Your task to perform on an android device: show emergency info Image 0: 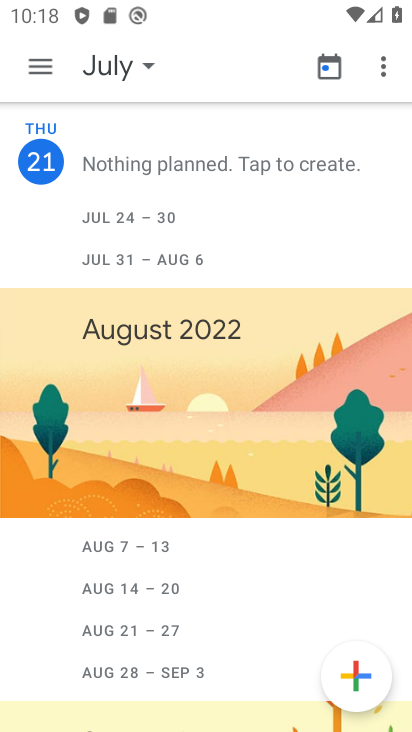
Step 0: press home button
Your task to perform on an android device: show emergency info Image 1: 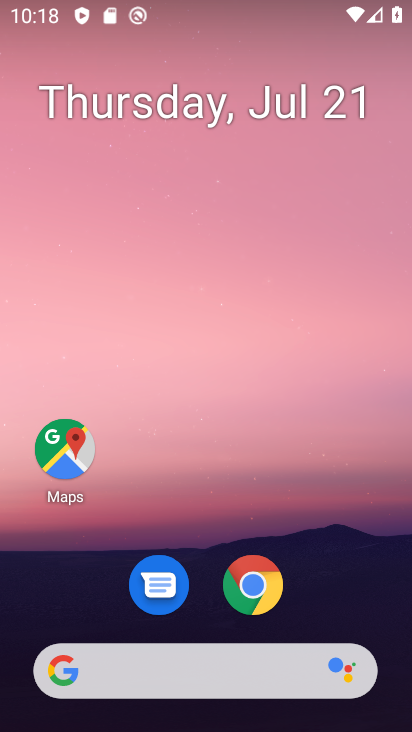
Step 1: drag from (184, 654) to (292, 23)
Your task to perform on an android device: show emergency info Image 2: 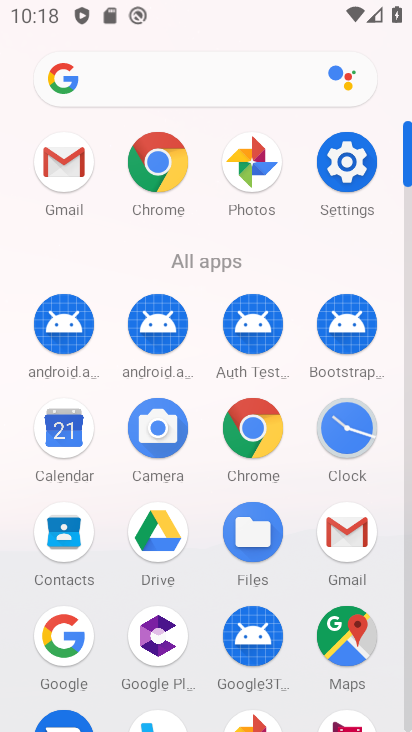
Step 2: click (354, 164)
Your task to perform on an android device: show emergency info Image 3: 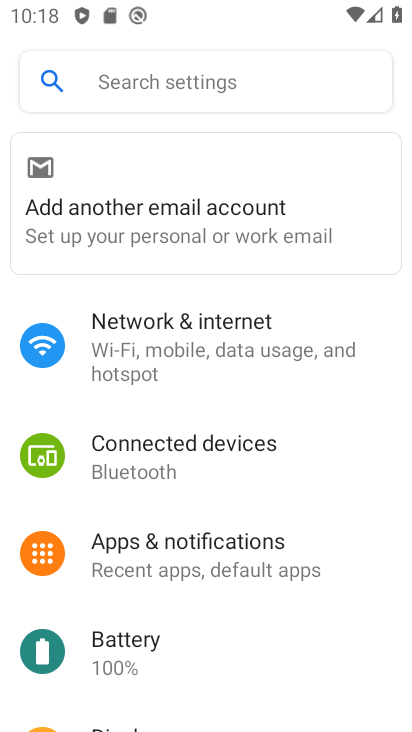
Step 3: drag from (215, 601) to (309, 82)
Your task to perform on an android device: show emergency info Image 4: 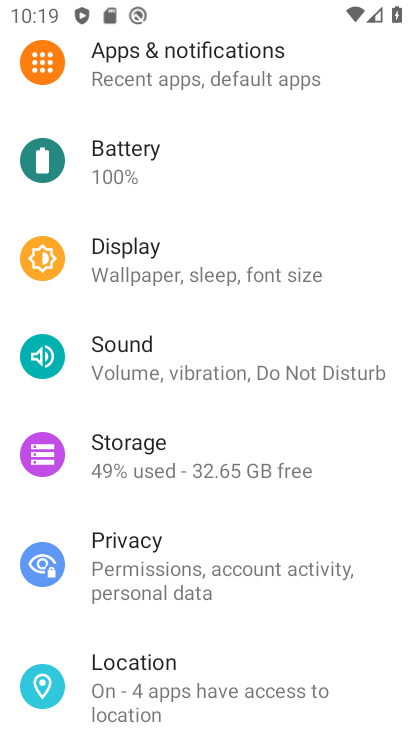
Step 4: drag from (224, 616) to (292, 44)
Your task to perform on an android device: show emergency info Image 5: 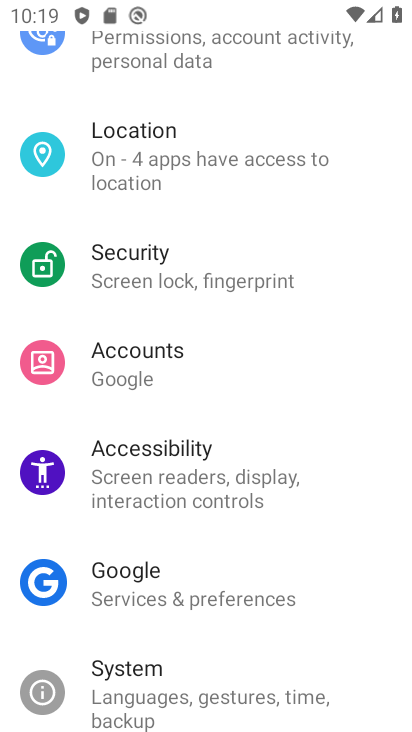
Step 5: drag from (230, 563) to (351, 69)
Your task to perform on an android device: show emergency info Image 6: 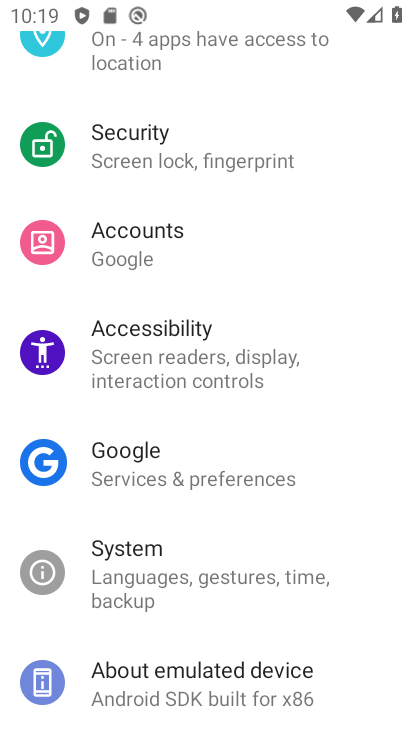
Step 6: click (227, 690)
Your task to perform on an android device: show emergency info Image 7: 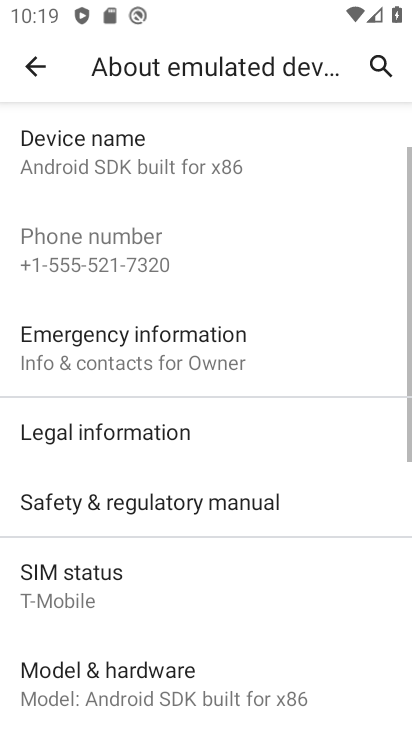
Step 7: click (131, 350)
Your task to perform on an android device: show emergency info Image 8: 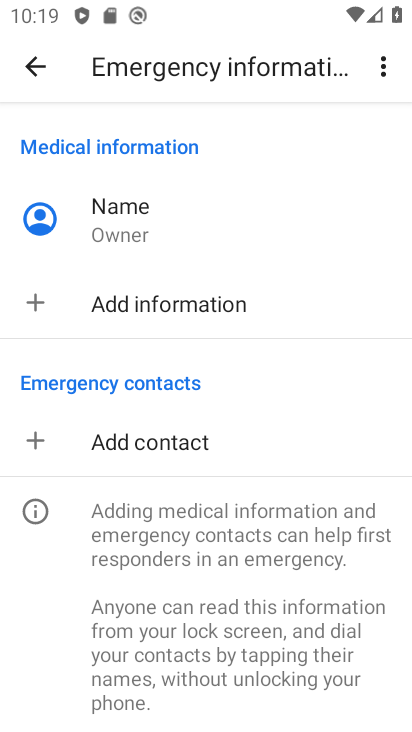
Step 8: task complete